Your task to perform on an android device: toggle improve location accuracy Image 0: 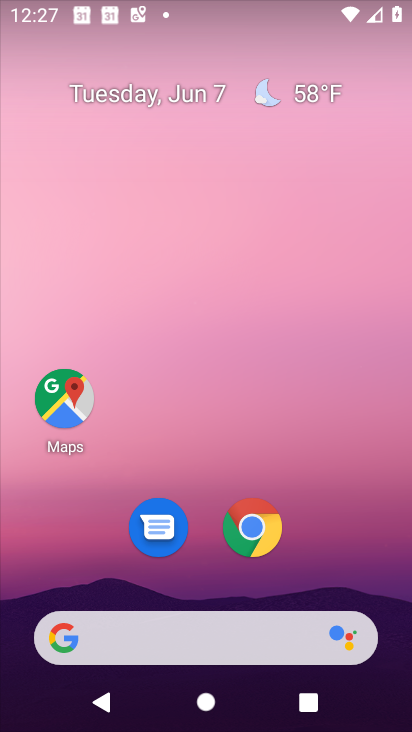
Step 0: click (386, 454)
Your task to perform on an android device: toggle improve location accuracy Image 1: 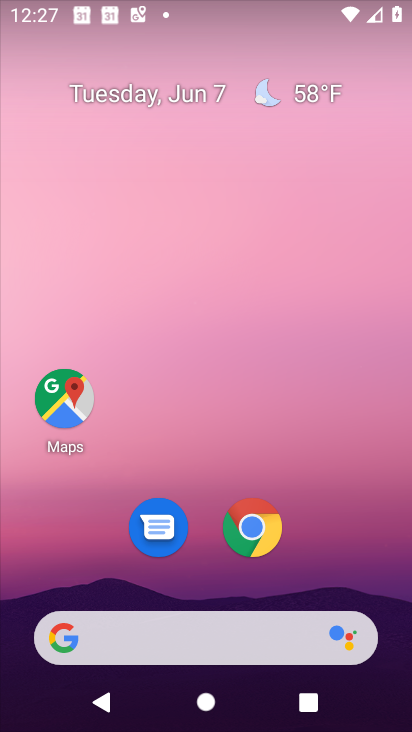
Step 1: drag from (249, 705) to (411, 608)
Your task to perform on an android device: toggle improve location accuracy Image 2: 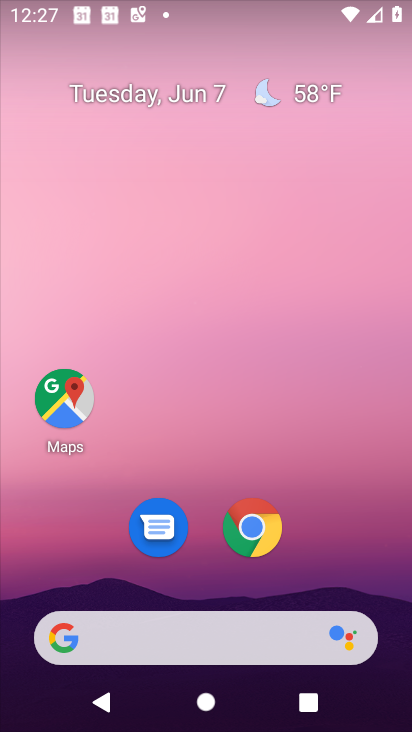
Step 2: drag from (244, 703) to (145, 90)
Your task to perform on an android device: toggle improve location accuracy Image 3: 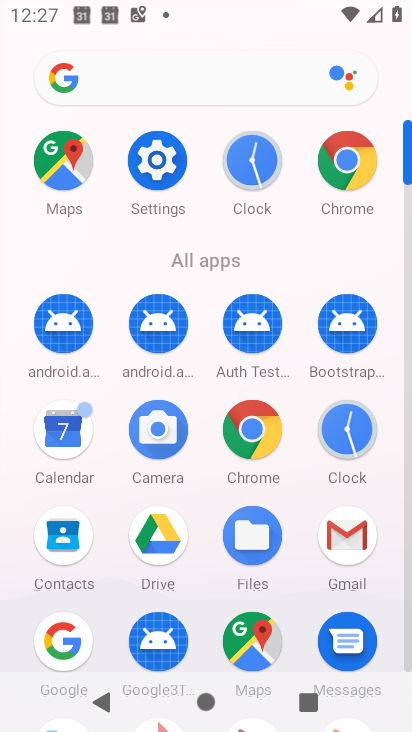
Step 3: click (151, 160)
Your task to perform on an android device: toggle improve location accuracy Image 4: 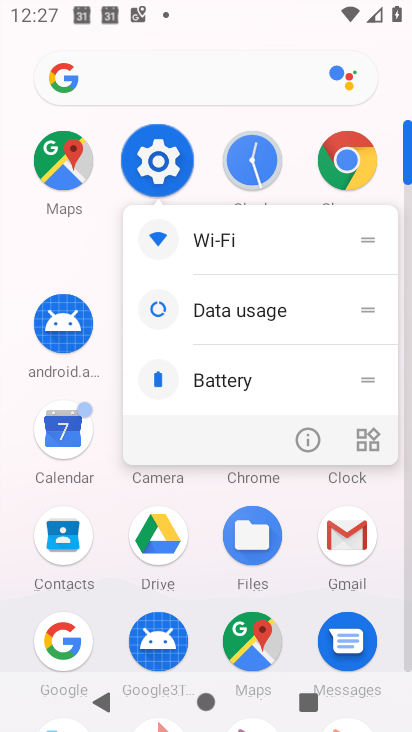
Step 4: click (151, 160)
Your task to perform on an android device: toggle improve location accuracy Image 5: 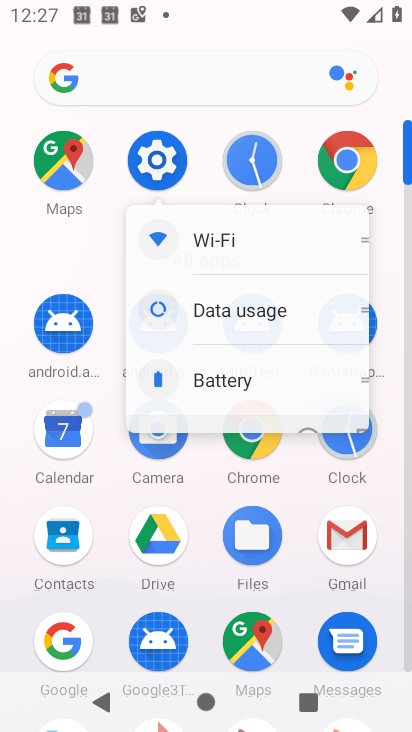
Step 5: click (151, 160)
Your task to perform on an android device: toggle improve location accuracy Image 6: 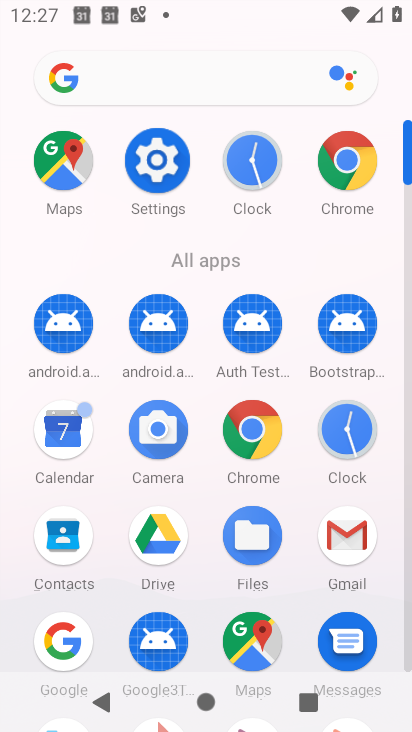
Step 6: click (152, 160)
Your task to perform on an android device: toggle improve location accuracy Image 7: 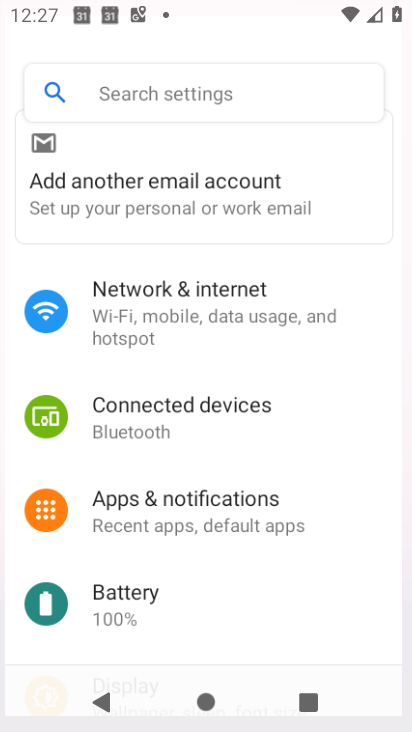
Step 7: click (156, 159)
Your task to perform on an android device: toggle improve location accuracy Image 8: 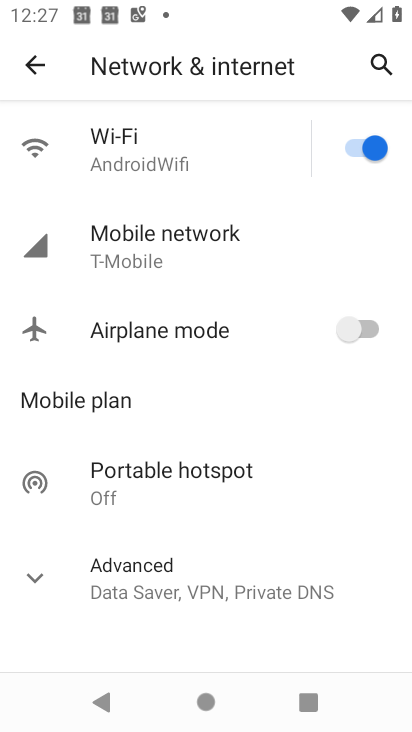
Step 8: drag from (200, 560) to (181, 230)
Your task to perform on an android device: toggle improve location accuracy Image 9: 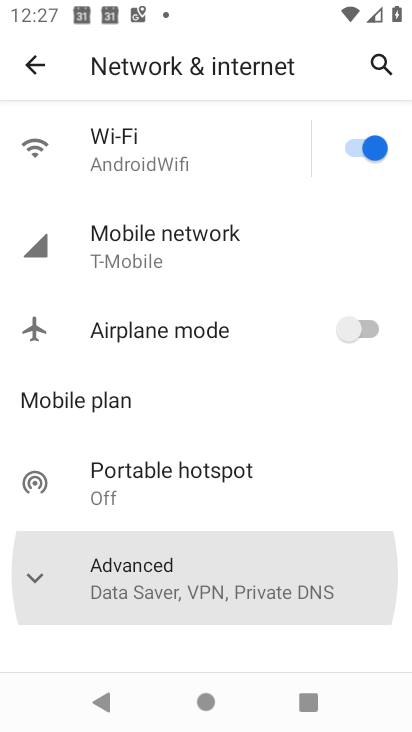
Step 9: drag from (236, 449) to (197, 151)
Your task to perform on an android device: toggle improve location accuracy Image 10: 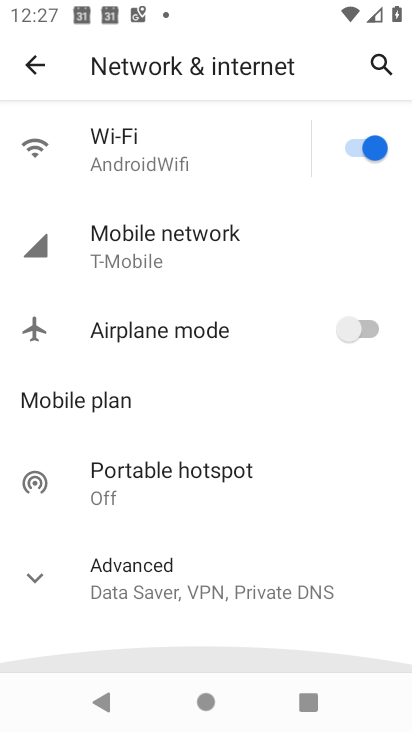
Step 10: drag from (207, 337) to (207, 143)
Your task to perform on an android device: toggle improve location accuracy Image 11: 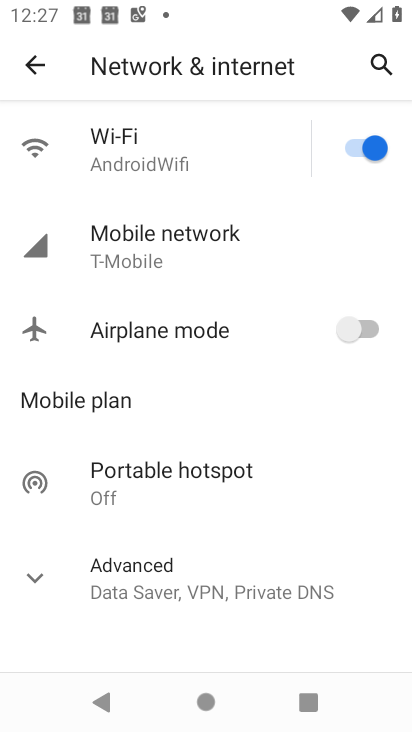
Step 11: click (40, 71)
Your task to perform on an android device: toggle improve location accuracy Image 12: 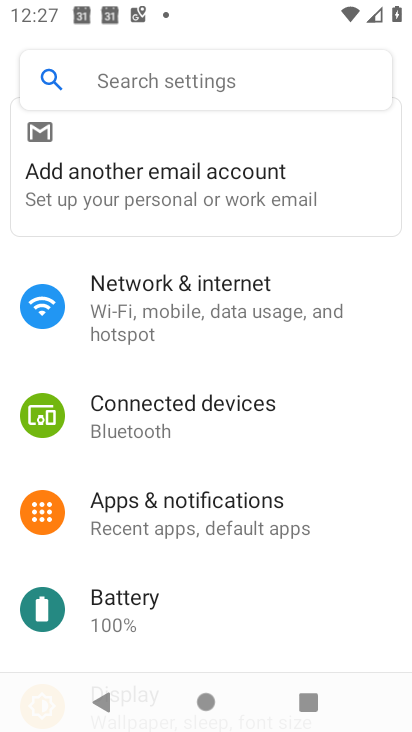
Step 12: drag from (152, 527) to (133, 332)
Your task to perform on an android device: toggle improve location accuracy Image 13: 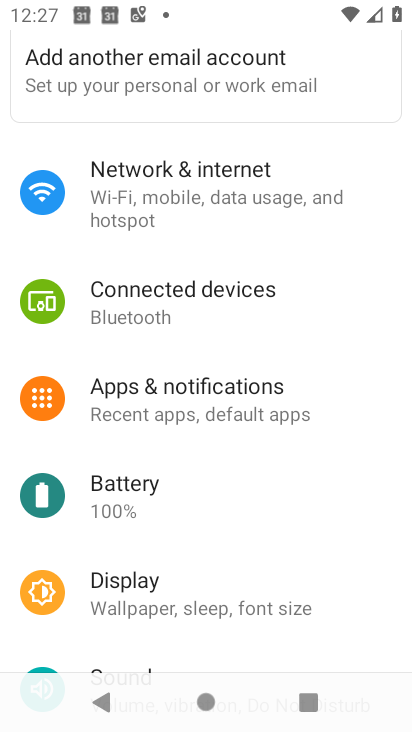
Step 13: drag from (178, 444) to (131, 223)
Your task to perform on an android device: toggle improve location accuracy Image 14: 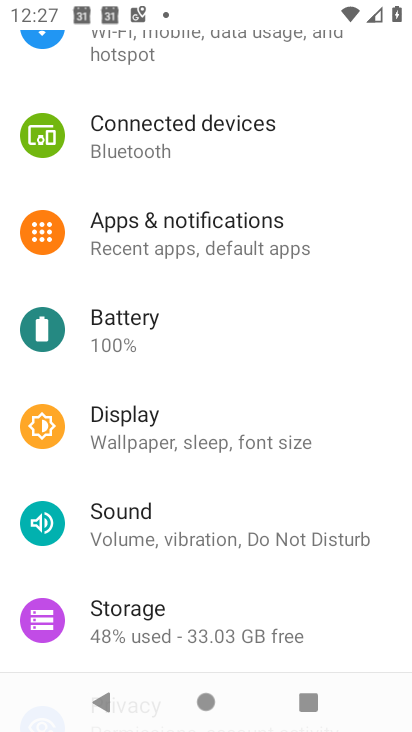
Step 14: drag from (158, 450) to (126, 215)
Your task to perform on an android device: toggle improve location accuracy Image 15: 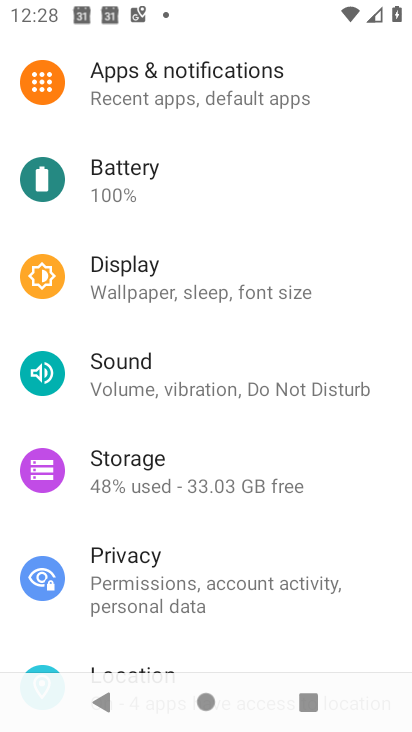
Step 15: drag from (192, 532) to (175, 149)
Your task to perform on an android device: toggle improve location accuracy Image 16: 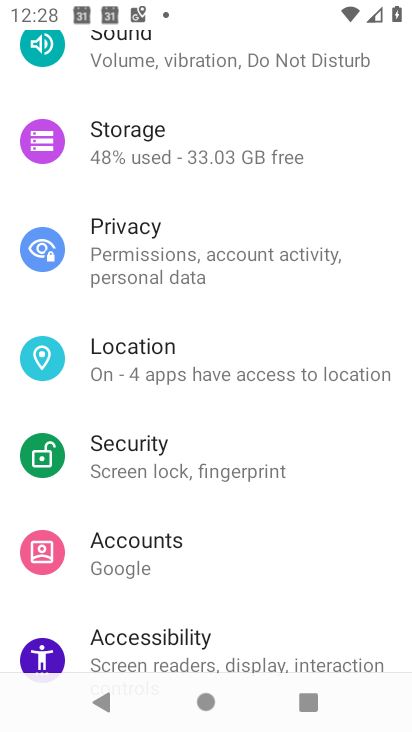
Step 16: drag from (192, 398) to (192, 96)
Your task to perform on an android device: toggle improve location accuracy Image 17: 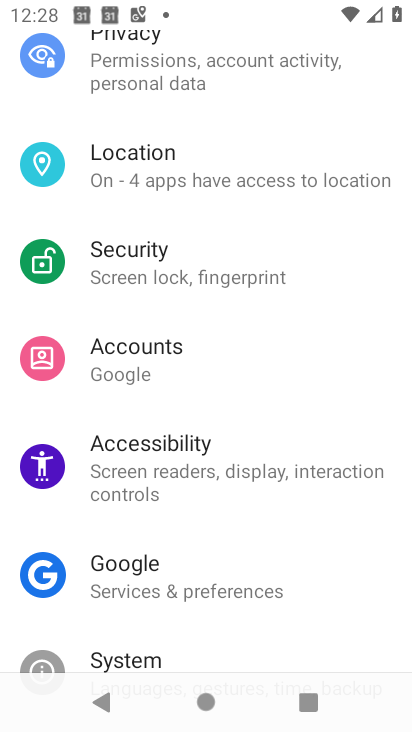
Step 17: click (153, 175)
Your task to perform on an android device: toggle improve location accuracy Image 18: 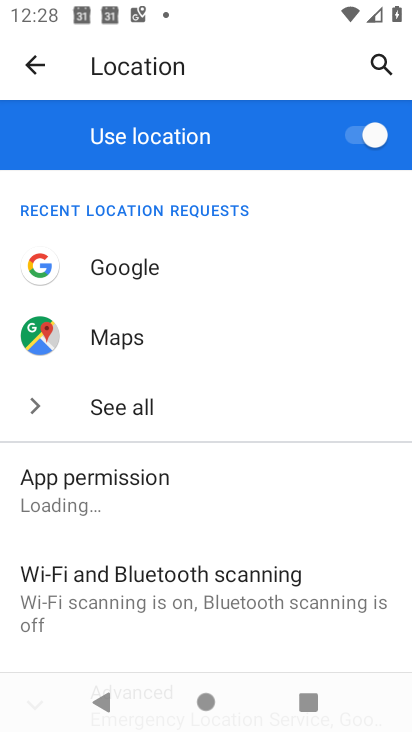
Step 18: drag from (160, 388) to (160, 55)
Your task to perform on an android device: toggle improve location accuracy Image 19: 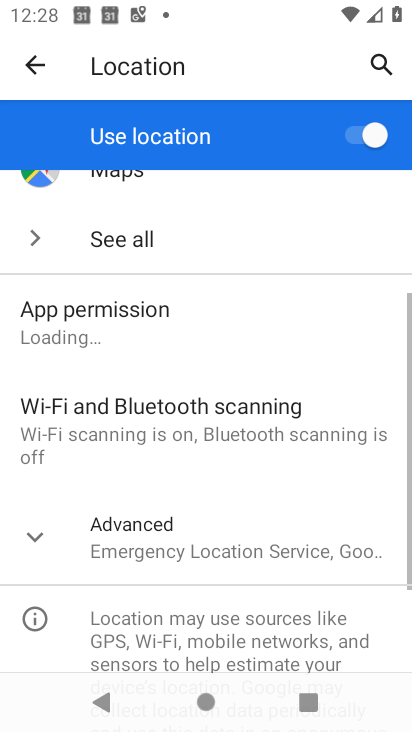
Step 19: drag from (215, 366) to (188, 197)
Your task to perform on an android device: toggle improve location accuracy Image 20: 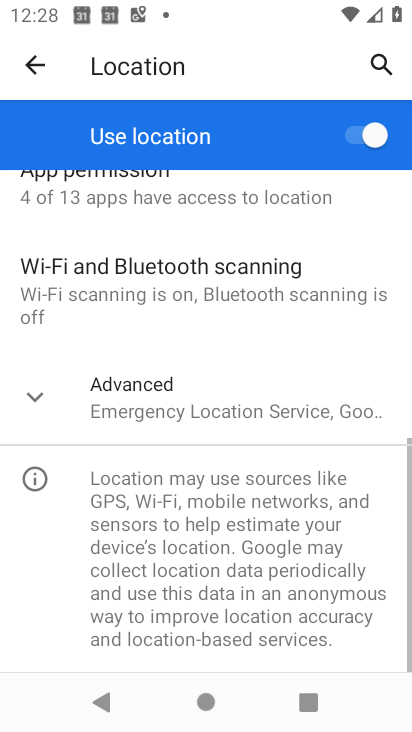
Step 20: click (141, 359)
Your task to perform on an android device: toggle improve location accuracy Image 21: 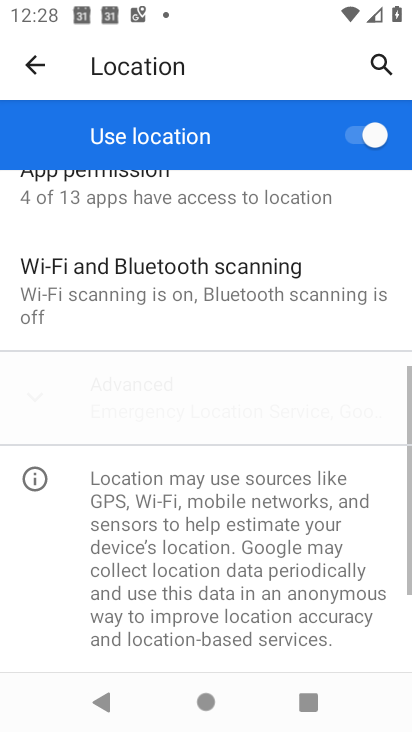
Step 21: click (143, 402)
Your task to perform on an android device: toggle improve location accuracy Image 22: 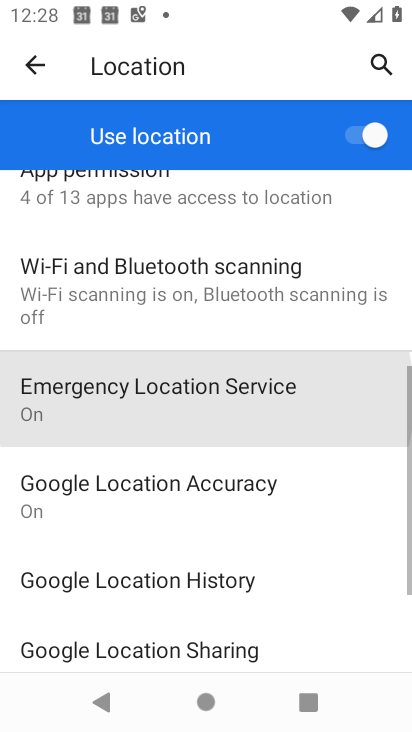
Step 22: click (142, 401)
Your task to perform on an android device: toggle improve location accuracy Image 23: 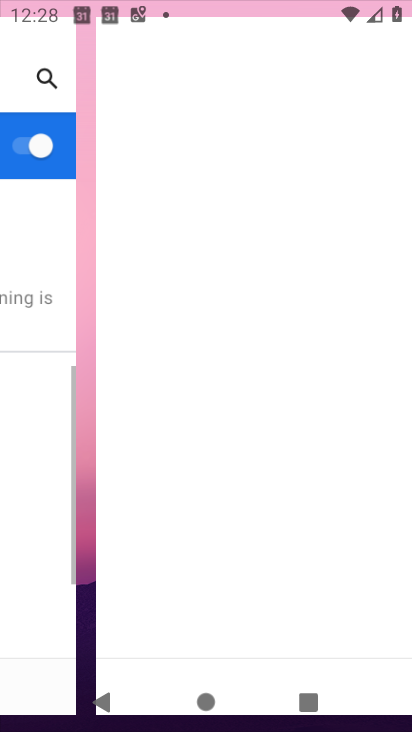
Step 23: click (140, 399)
Your task to perform on an android device: toggle improve location accuracy Image 24: 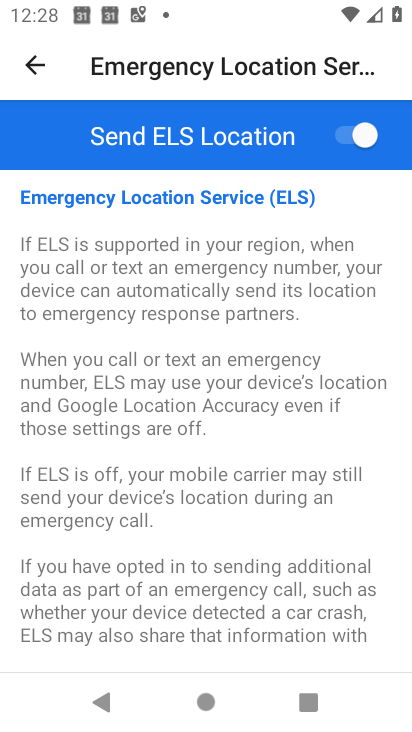
Step 24: click (39, 65)
Your task to perform on an android device: toggle improve location accuracy Image 25: 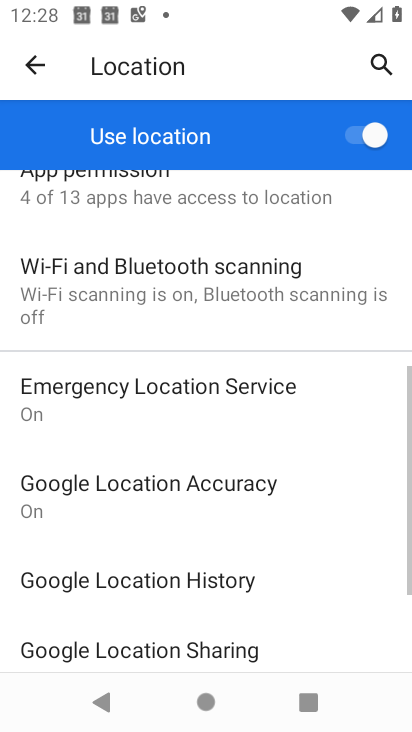
Step 25: click (165, 481)
Your task to perform on an android device: toggle improve location accuracy Image 26: 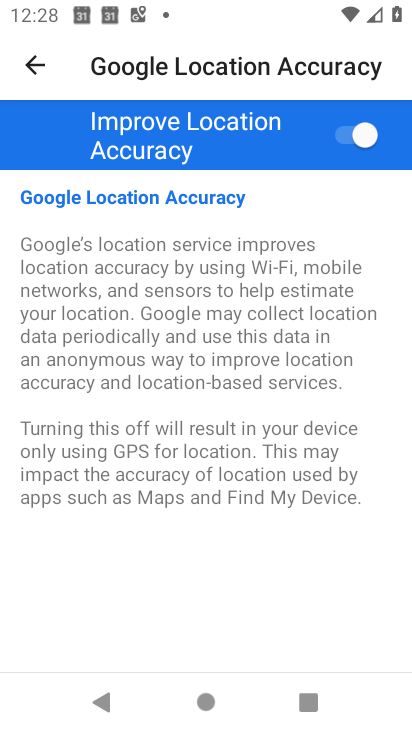
Step 26: task complete